Your task to perform on an android device: Search for 4k TVs on Best Buy. Image 0: 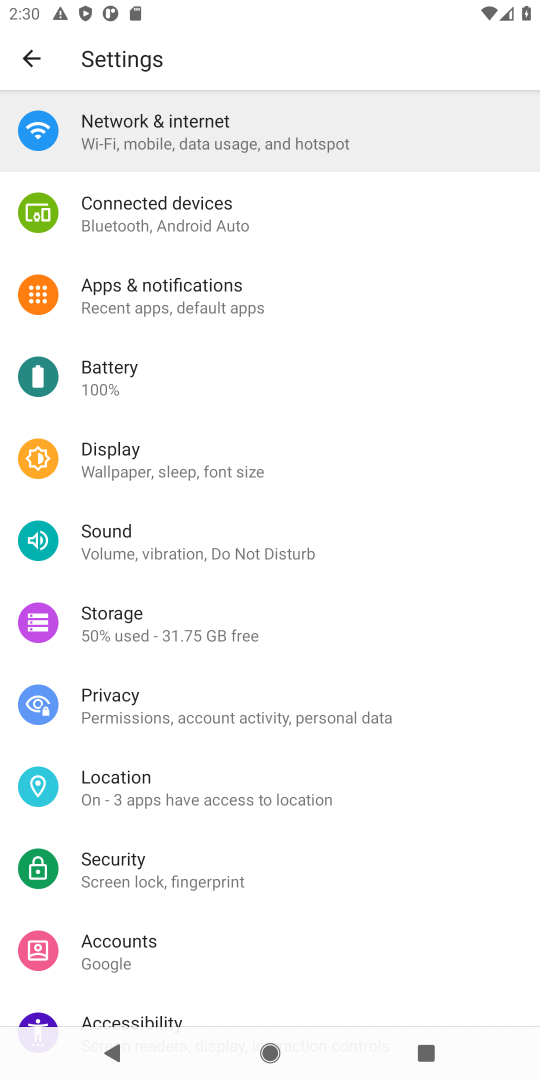
Step 0: press home button
Your task to perform on an android device: Search for 4k TVs on Best Buy. Image 1: 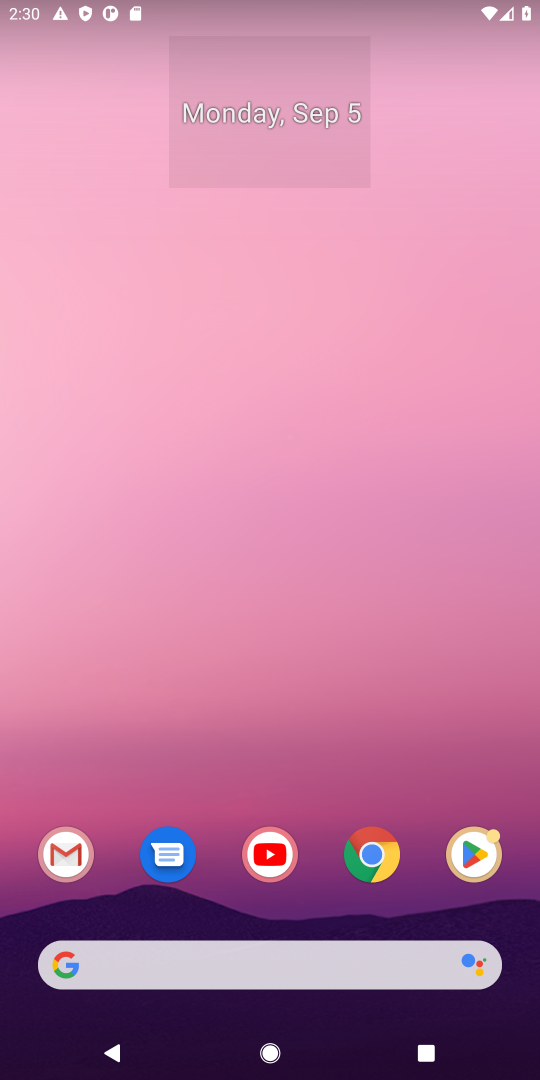
Step 1: click (343, 964)
Your task to perform on an android device: Search for 4k TVs on Best Buy. Image 2: 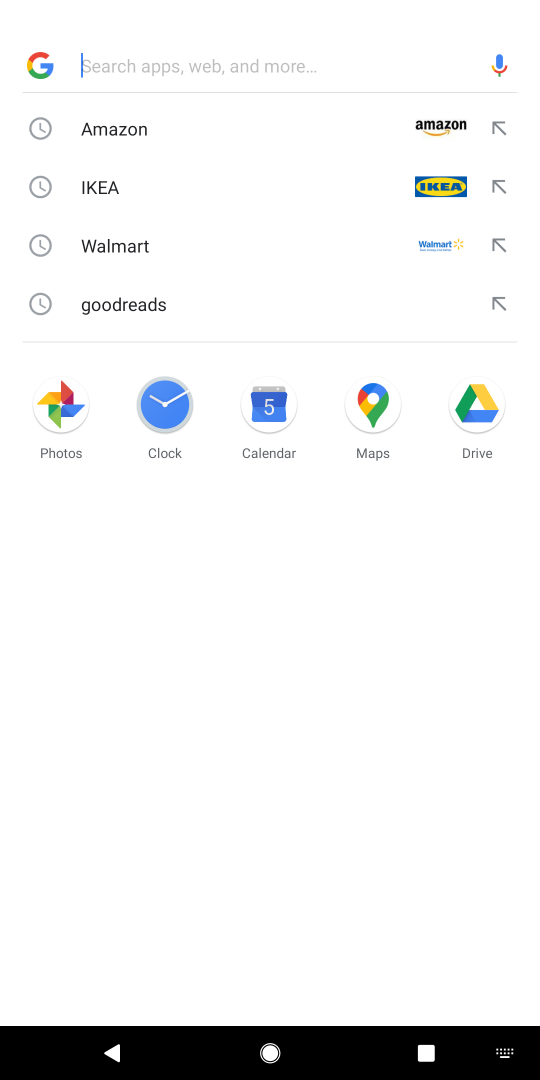
Step 2: type "best buy"
Your task to perform on an android device: Search for 4k TVs on Best Buy. Image 3: 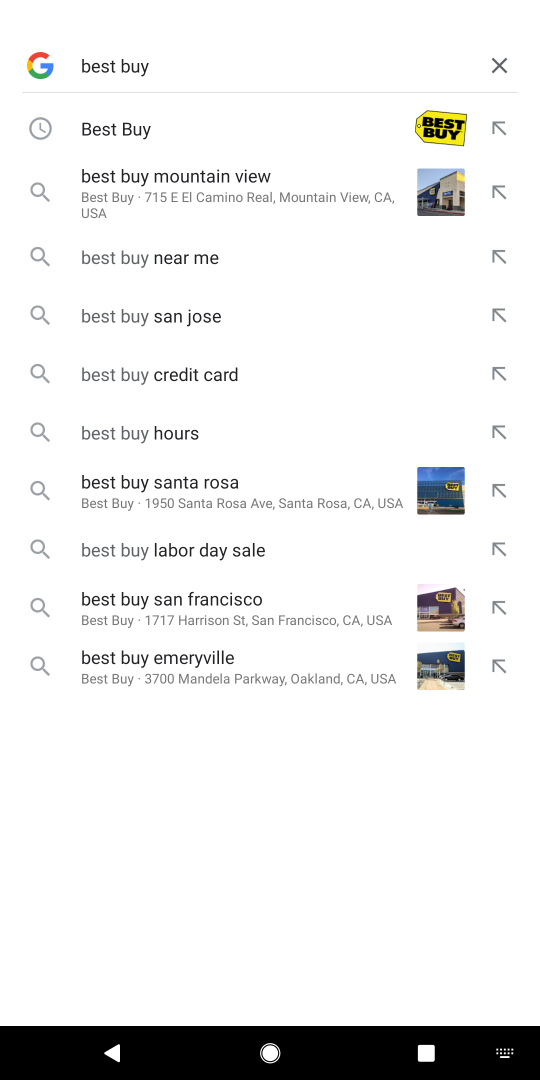
Step 3: press enter
Your task to perform on an android device: Search for 4k TVs on Best Buy. Image 4: 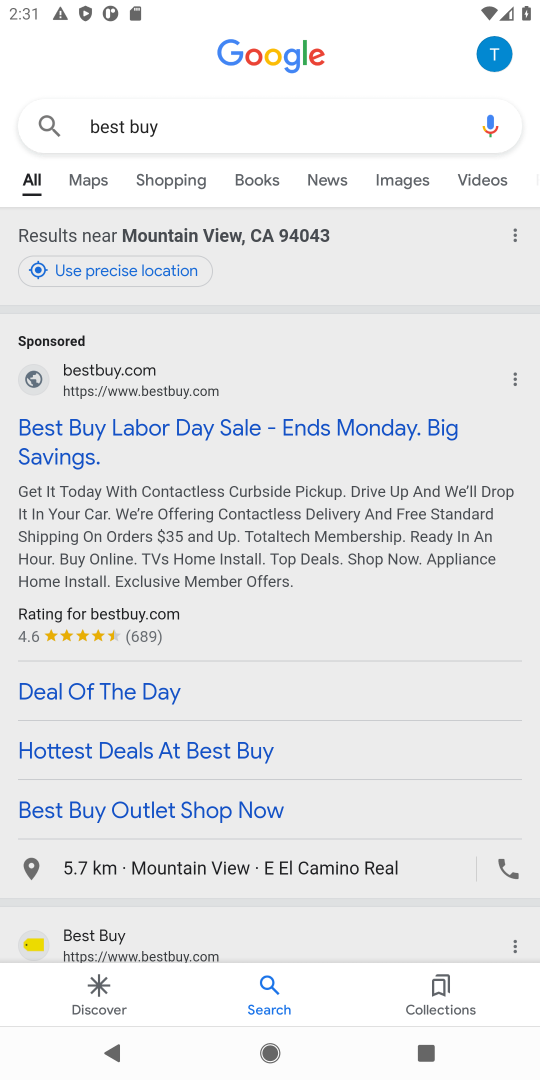
Step 4: click (111, 420)
Your task to perform on an android device: Search for 4k TVs on Best Buy. Image 5: 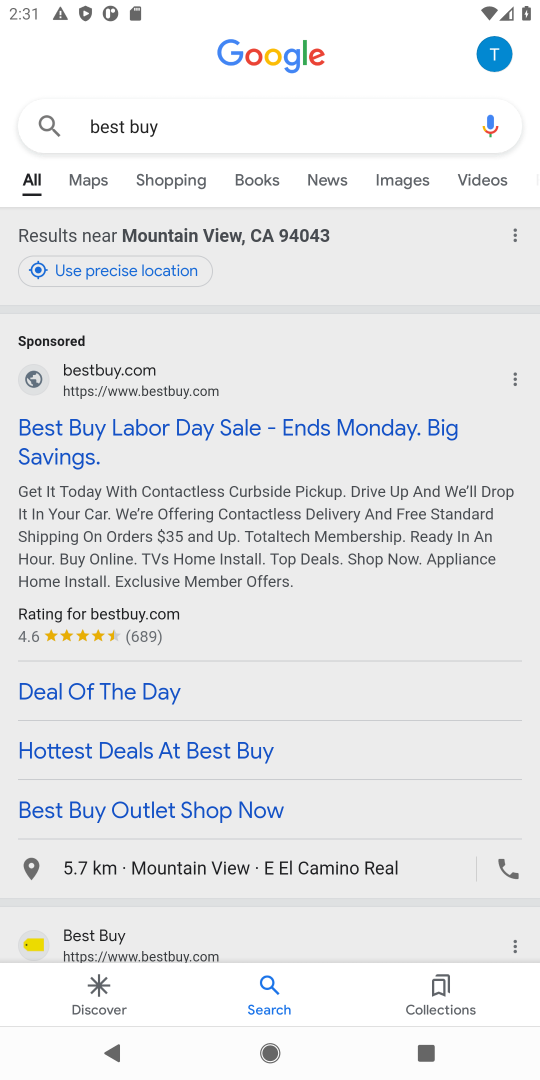
Step 5: click (61, 432)
Your task to perform on an android device: Search for 4k TVs on Best Buy. Image 6: 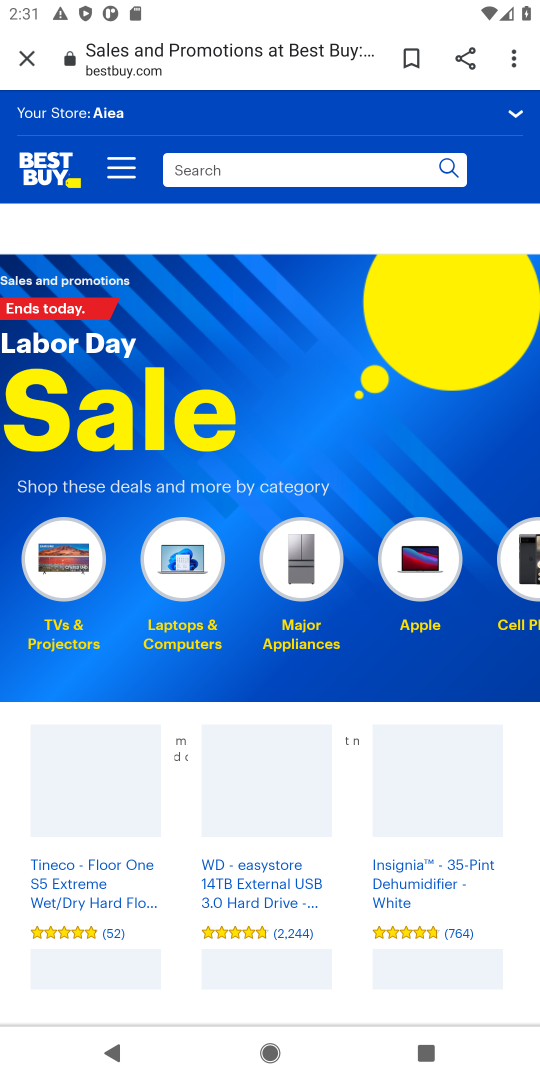
Step 6: click (254, 165)
Your task to perform on an android device: Search for 4k TVs on Best Buy. Image 7: 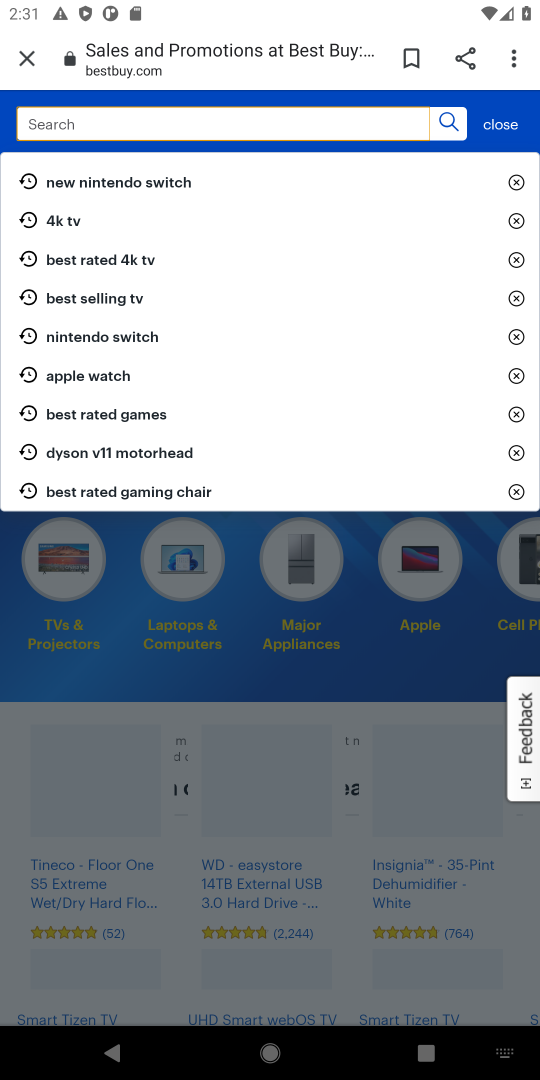
Step 7: type "4k tvs"
Your task to perform on an android device: Search for 4k TVs on Best Buy. Image 8: 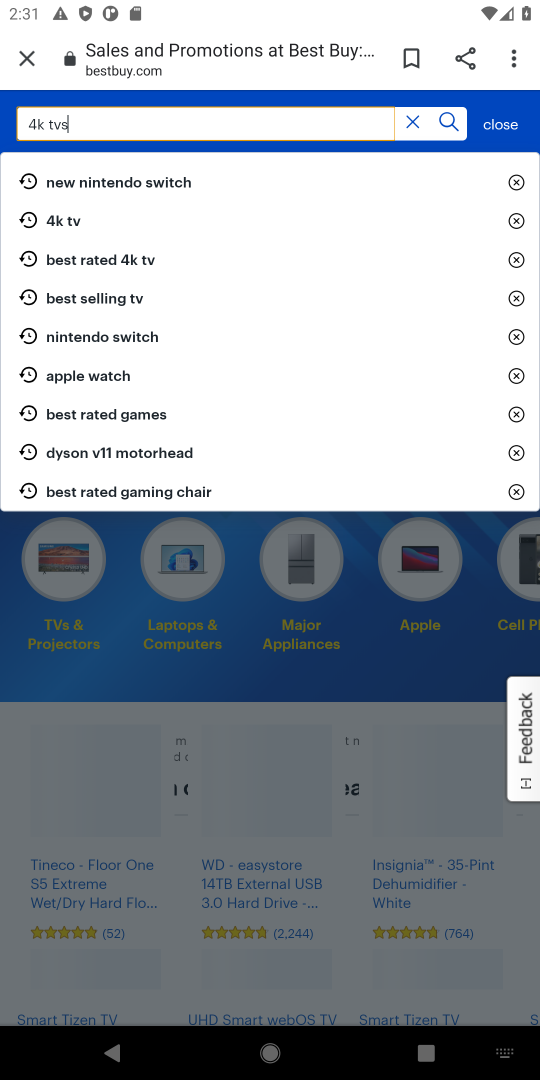
Step 8: press enter
Your task to perform on an android device: Search for 4k TVs on Best Buy. Image 9: 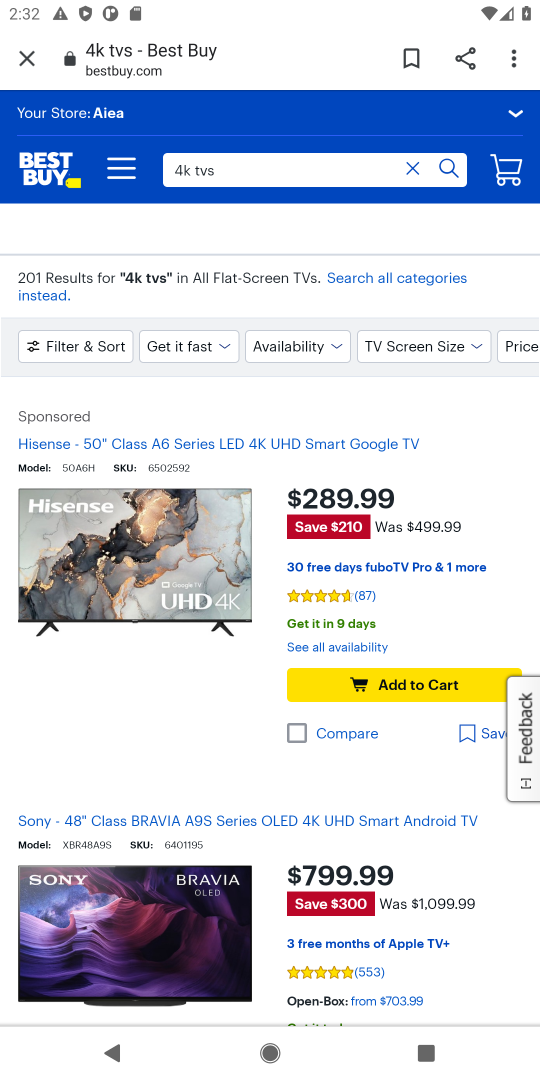
Step 9: task complete